Your task to perform on an android device: Add jbl charge 4 to the cart on costco.com Image 0: 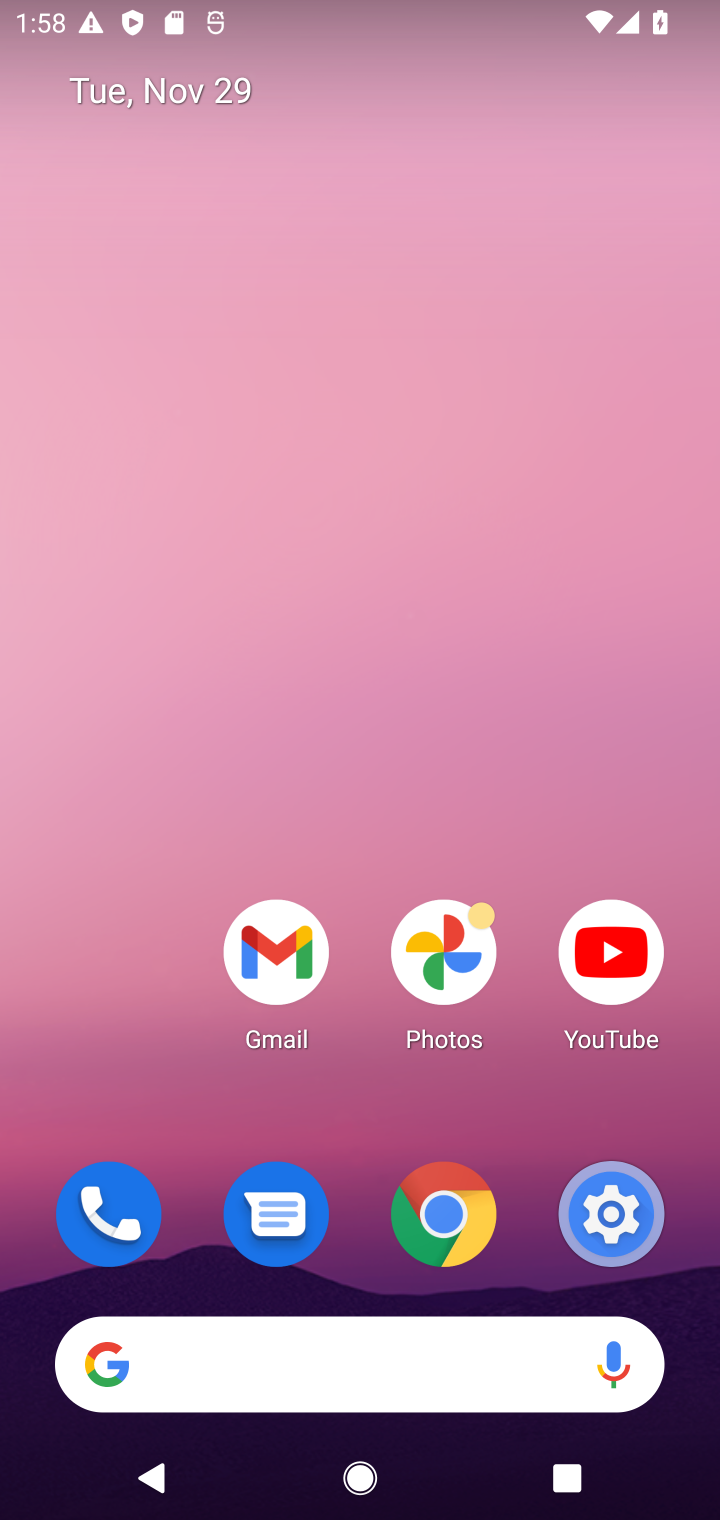
Step 0: click (327, 1387)
Your task to perform on an android device: Add jbl charge 4 to the cart on costco.com Image 1: 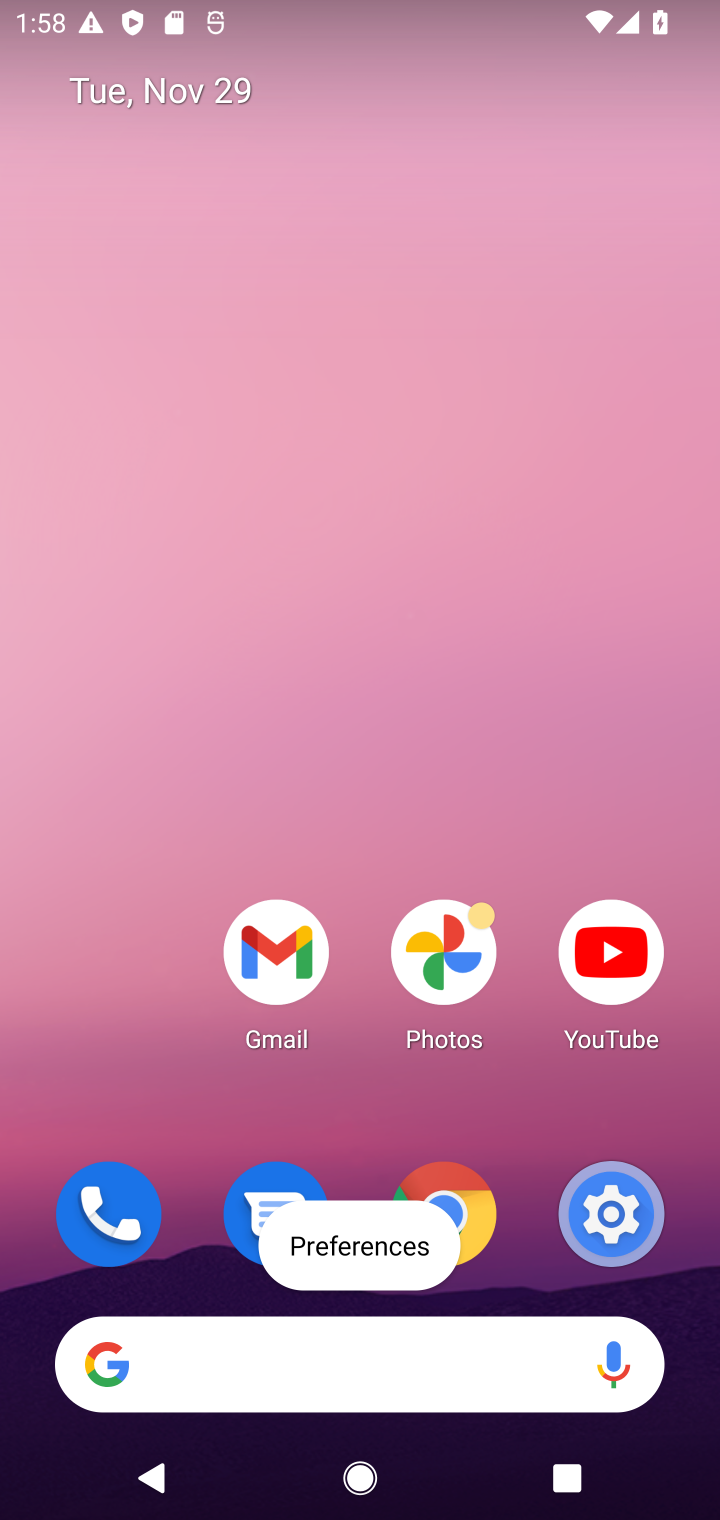
Step 1: type "costco.com"
Your task to perform on an android device: Add jbl charge 4 to the cart on costco.com Image 2: 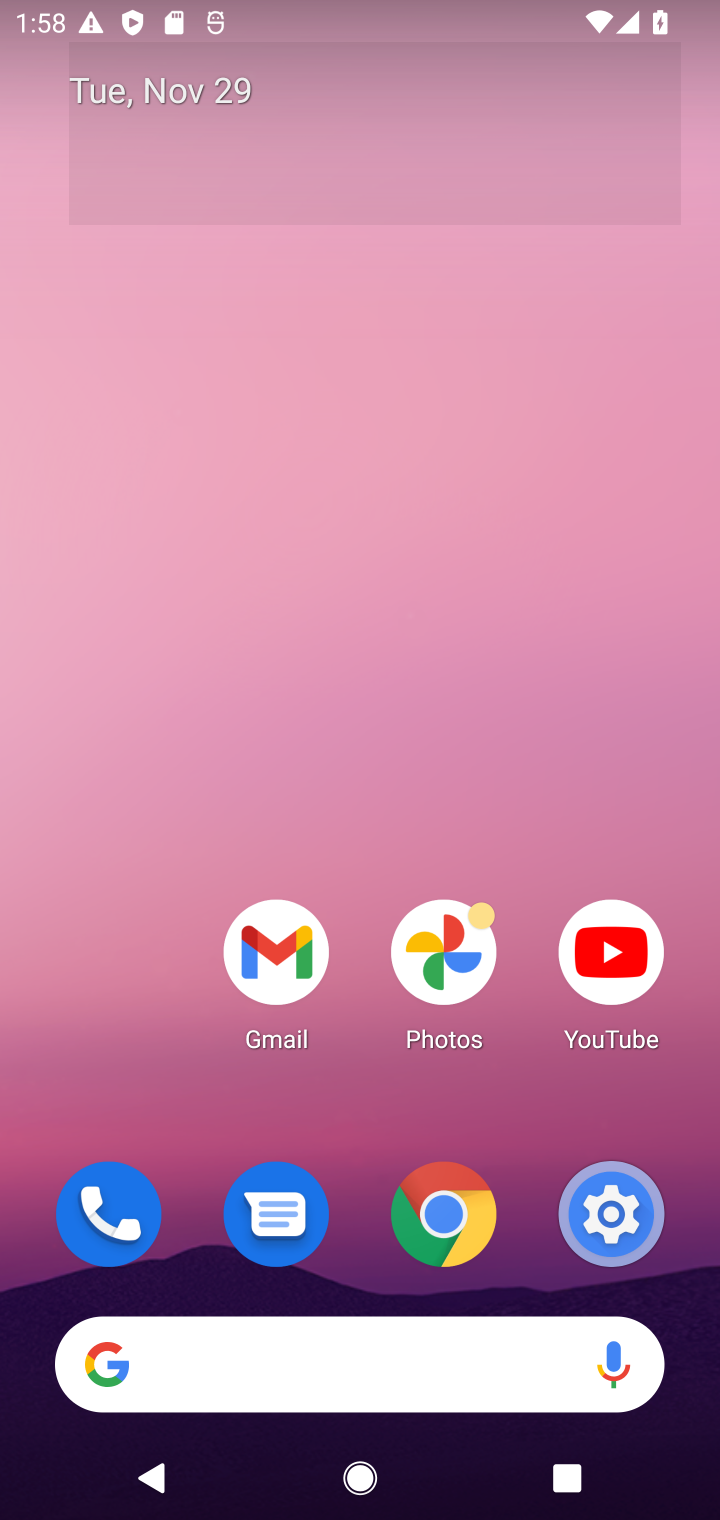
Step 2: task complete